Your task to perform on an android device: Go to Google Image 0: 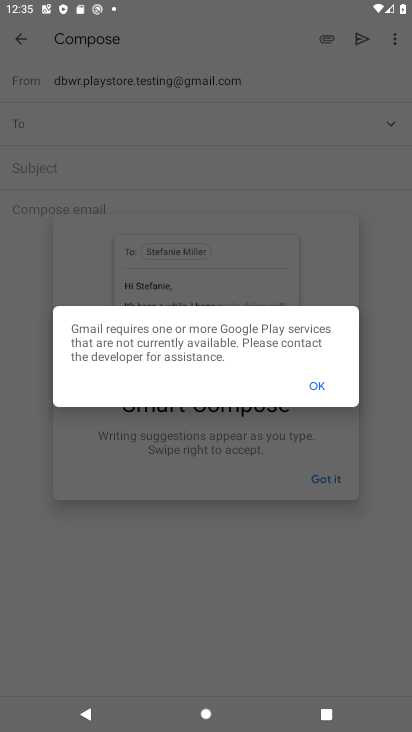
Step 0: press home button
Your task to perform on an android device: Go to Google Image 1: 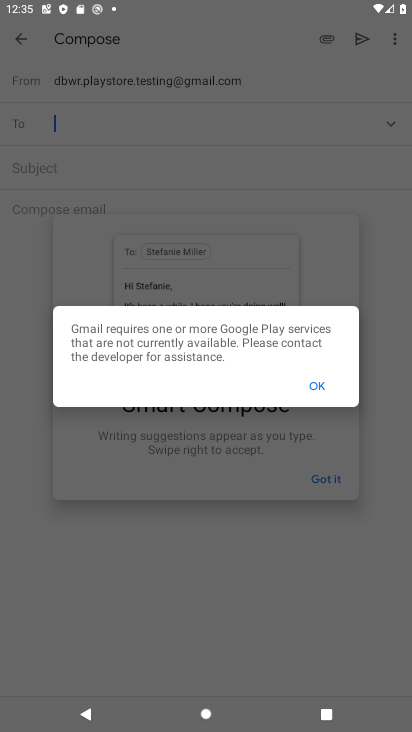
Step 1: press home button
Your task to perform on an android device: Go to Google Image 2: 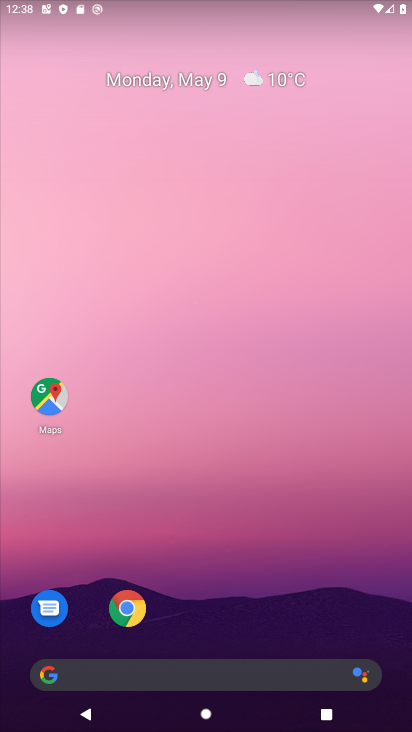
Step 2: click (123, 617)
Your task to perform on an android device: Go to Google Image 3: 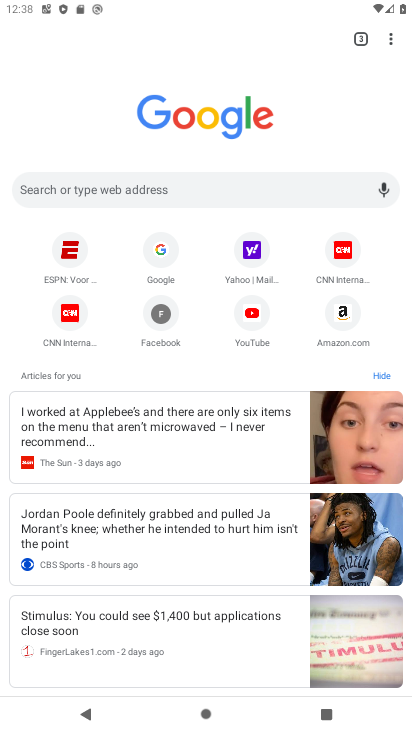
Step 3: click (166, 241)
Your task to perform on an android device: Go to Google Image 4: 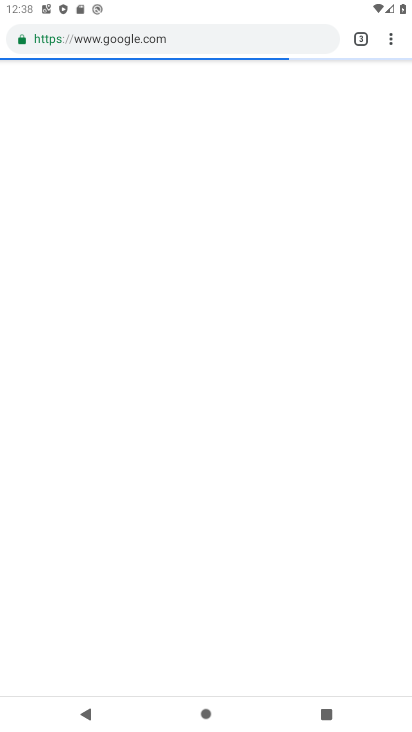
Step 4: task complete